Your task to perform on an android device: Toggle the flashlight Image 0: 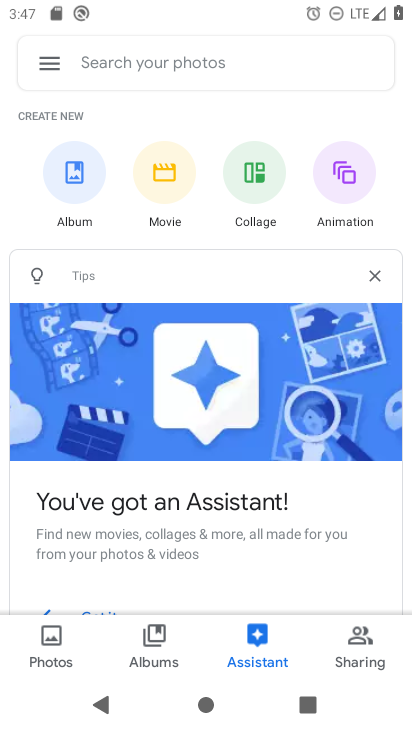
Step 0: press home button
Your task to perform on an android device: Toggle the flashlight Image 1: 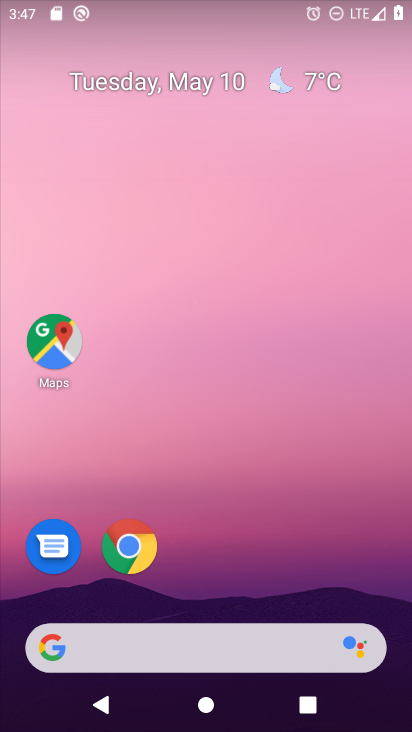
Step 1: drag from (204, 579) to (257, 17)
Your task to perform on an android device: Toggle the flashlight Image 2: 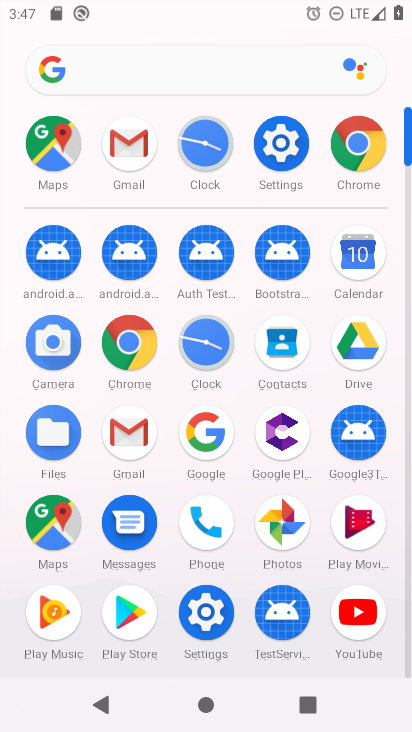
Step 2: click (279, 155)
Your task to perform on an android device: Toggle the flashlight Image 3: 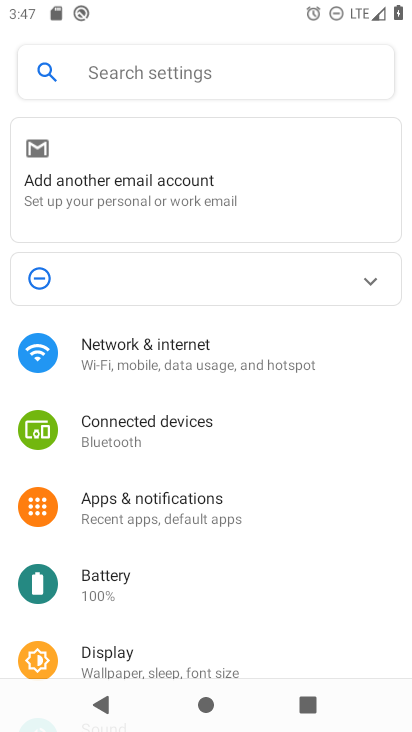
Step 3: click (213, 71)
Your task to perform on an android device: Toggle the flashlight Image 4: 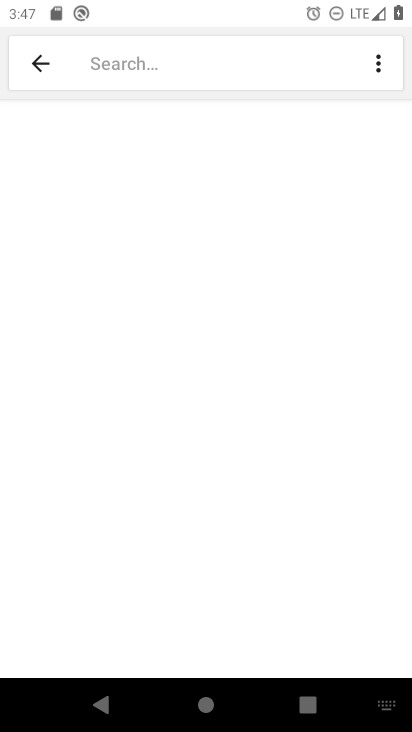
Step 4: type "flashlight"
Your task to perform on an android device: Toggle the flashlight Image 5: 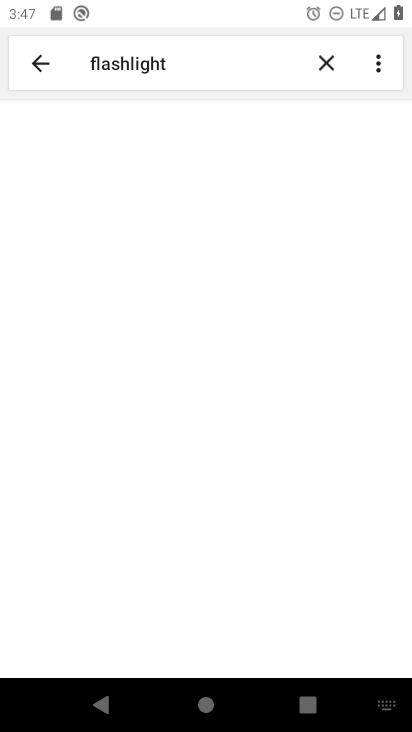
Step 5: click (156, 144)
Your task to perform on an android device: Toggle the flashlight Image 6: 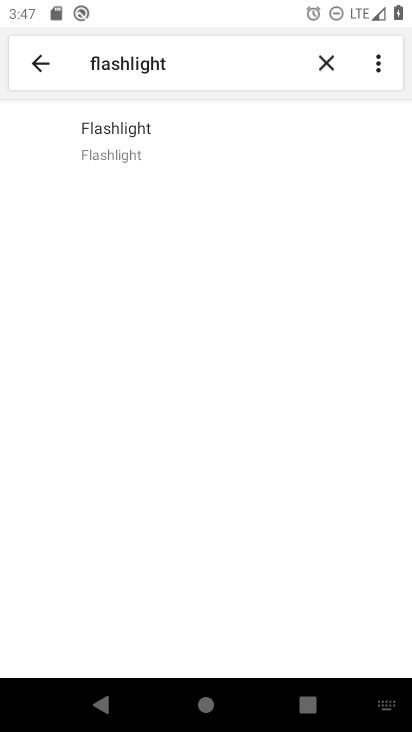
Step 6: click (149, 143)
Your task to perform on an android device: Toggle the flashlight Image 7: 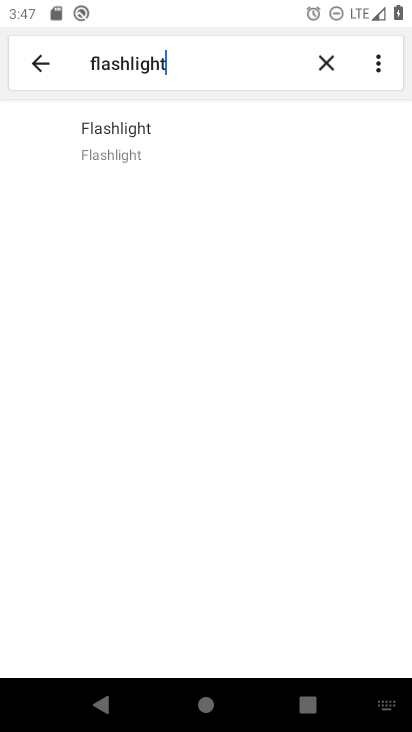
Step 7: task complete